Your task to perform on an android device: turn notification dots on Image 0: 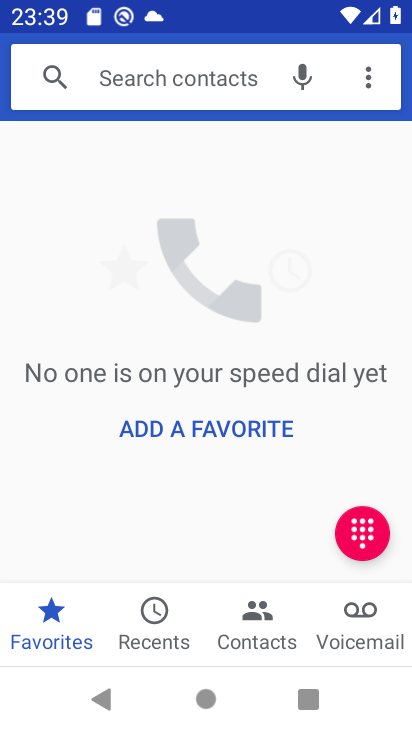
Step 0: click (273, 503)
Your task to perform on an android device: turn notification dots on Image 1: 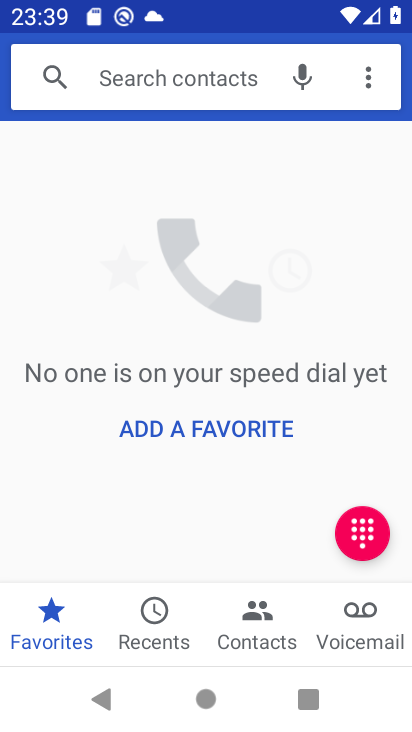
Step 1: press home button
Your task to perform on an android device: turn notification dots on Image 2: 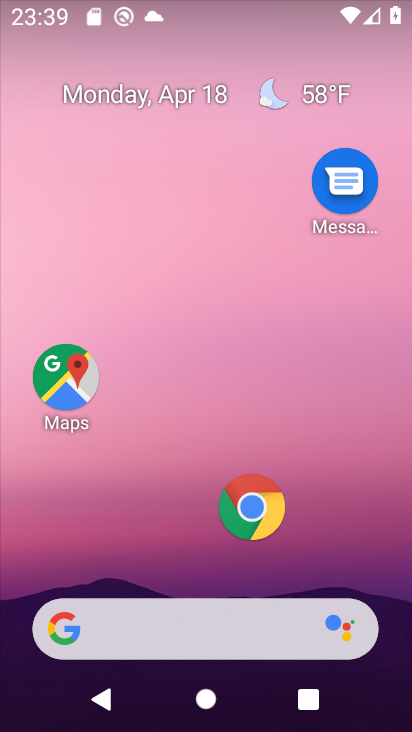
Step 2: drag from (193, 514) to (258, 3)
Your task to perform on an android device: turn notification dots on Image 3: 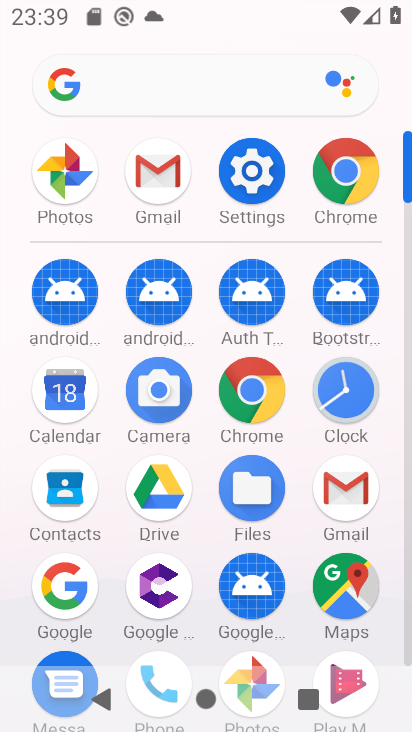
Step 3: click (259, 192)
Your task to perform on an android device: turn notification dots on Image 4: 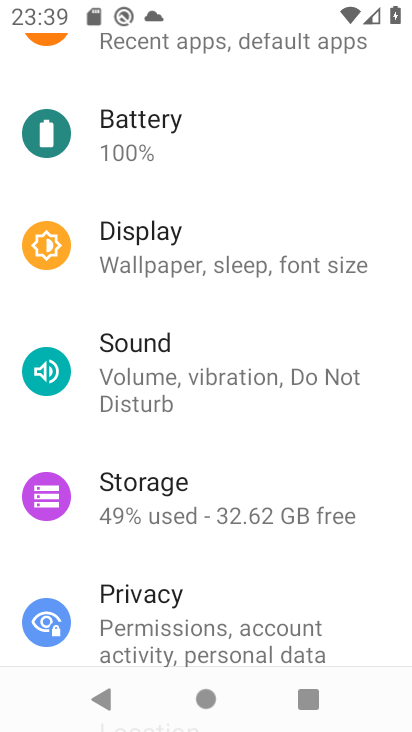
Step 4: drag from (239, 165) to (205, 611)
Your task to perform on an android device: turn notification dots on Image 5: 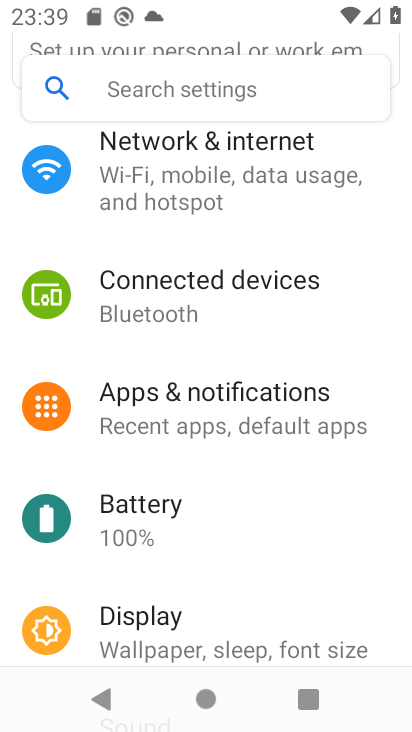
Step 5: click (213, 421)
Your task to perform on an android device: turn notification dots on Image 6: 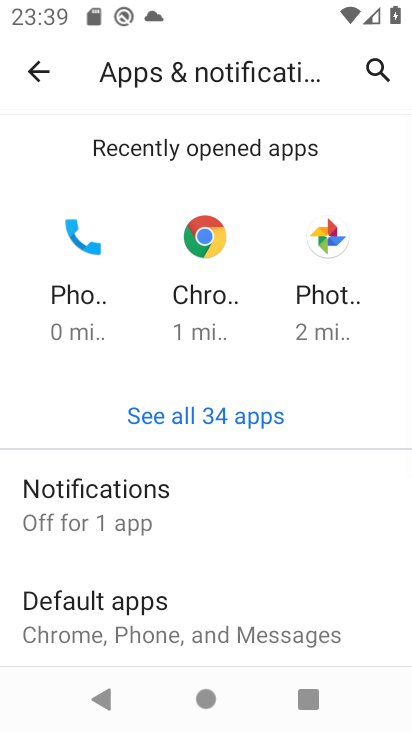
Step 6: click (122, 524)
Your task to perform on an android device: turn notification dots on Image 7: 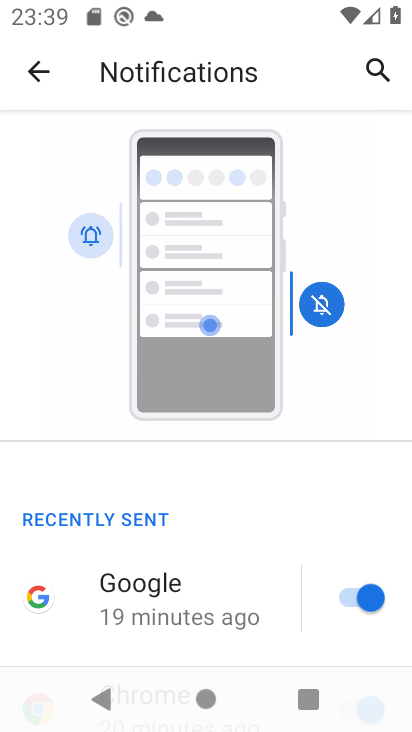
Step 7: drag from (177, 571) to (311, 1)
Your task to perform on an android device: turn notification dots on Image 8: 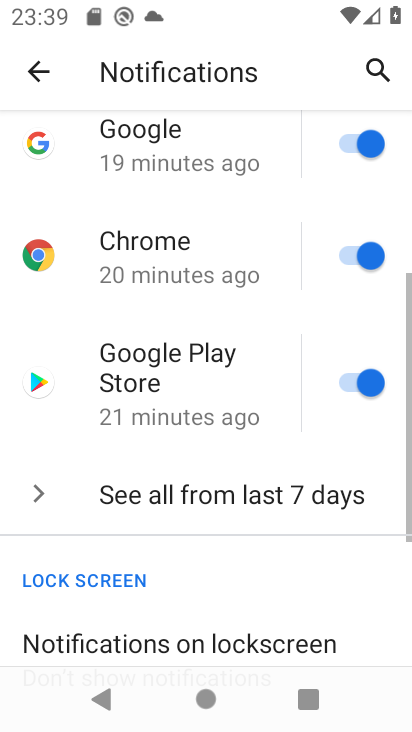
Step 8: drag from (177, 430) to (268, 0)
Your task to perform on an android device: turn notification dots on Image 9: 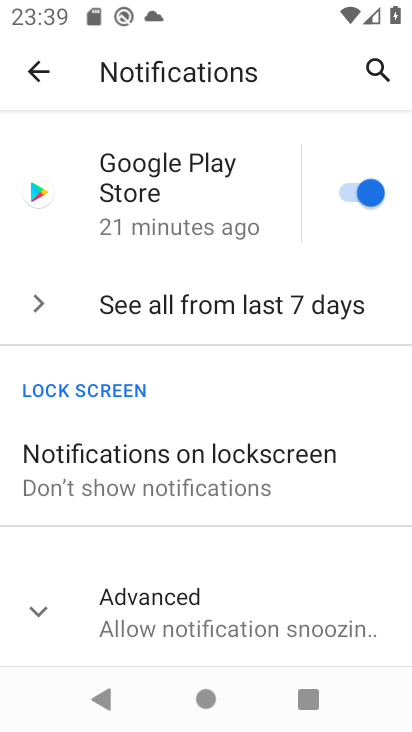
Step 9: click (156, 606)
Your task to perform on an android device: turn notification dots on Image 10: 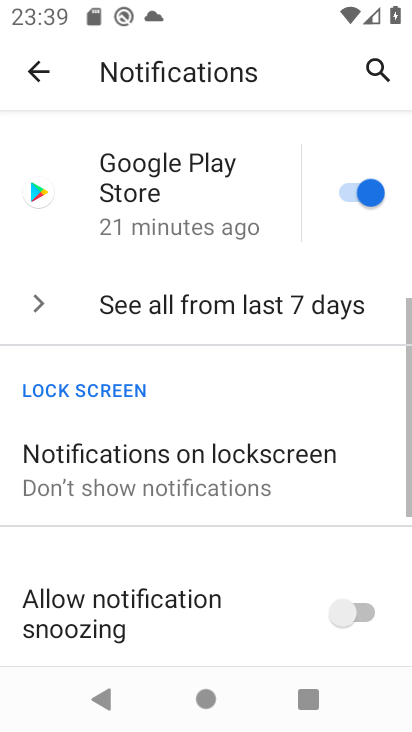
Step 10: task complete